Your task to perform on an android device: See recent photos Image 0: 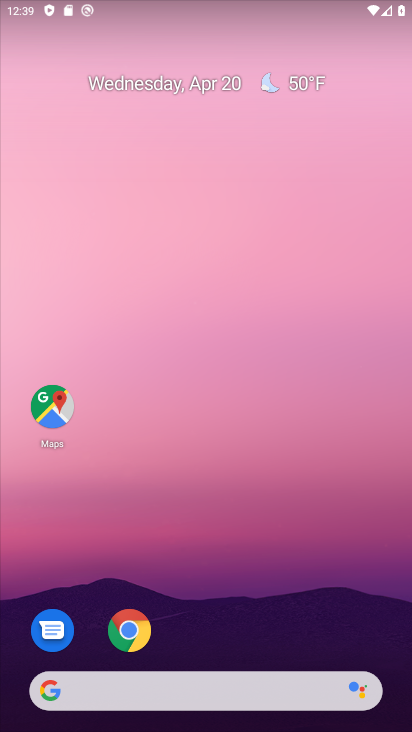
Step 0: drag from (242, 591) to (256, 123)
Your task to perform on an android device: See recent photos Image 1: 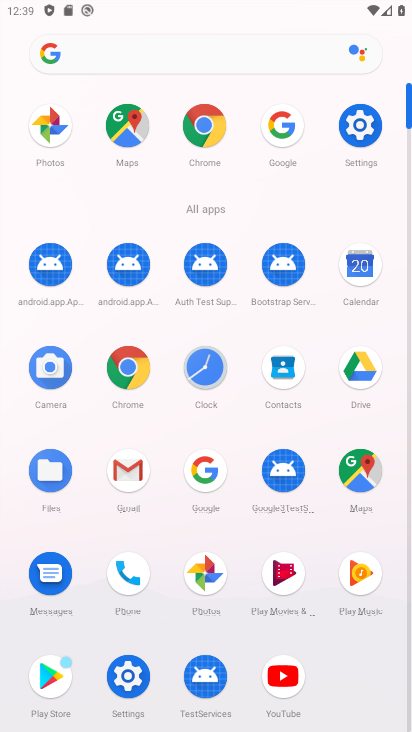
Step 1: click (52, 122)
Your task to perform on an android device: See recent photos Image 2: 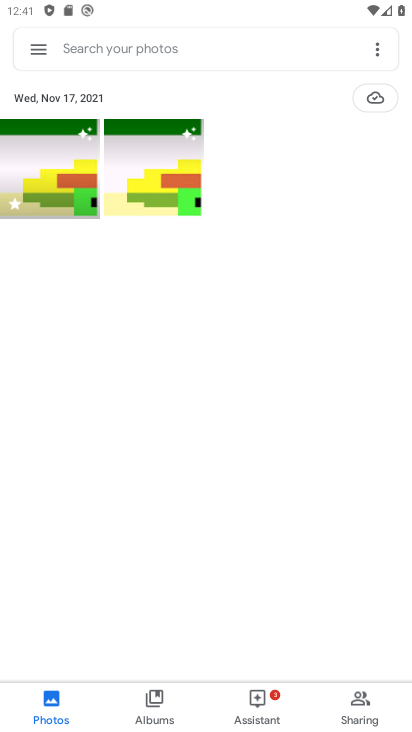
Step 2: task complete